Your task to perform on an android device: turn off notifications settings in the gmail app Image 0: 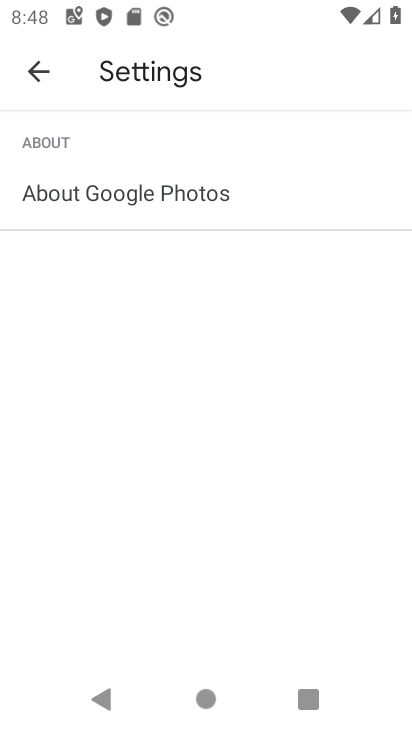
Step 0: press home button
Your task to perform on an android device: turn off notifications settings in the gmail app Image 1: 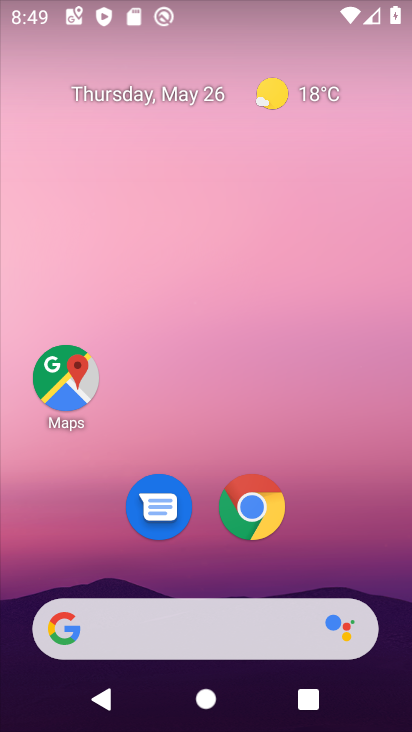
Step 1: drag from (225, 652) to (244, 140)
Your task to perform on an android device: turn off notifications settings in the gmail app Image 2: 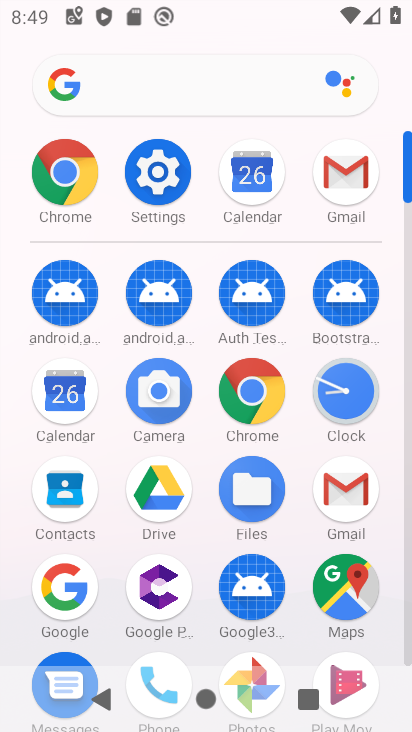
Step 2: click (156, 189)
Your task to perform on an android device: turn off notifications settings in the gmail app Image 3: 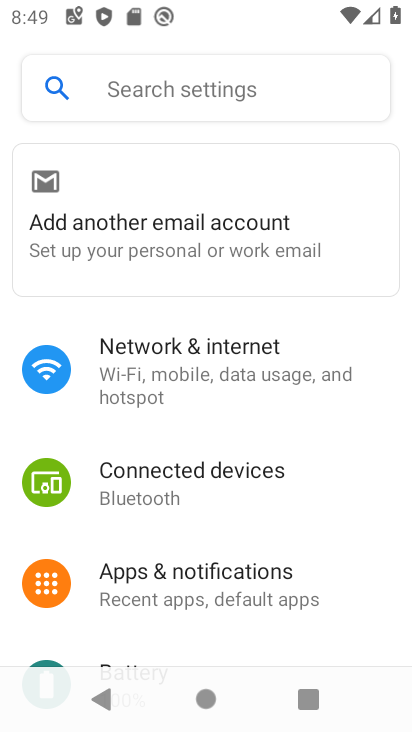
Step 3: click (170, 82)
Your task to perform on an android device: turn off notifications settings in the gmail app Image 4: 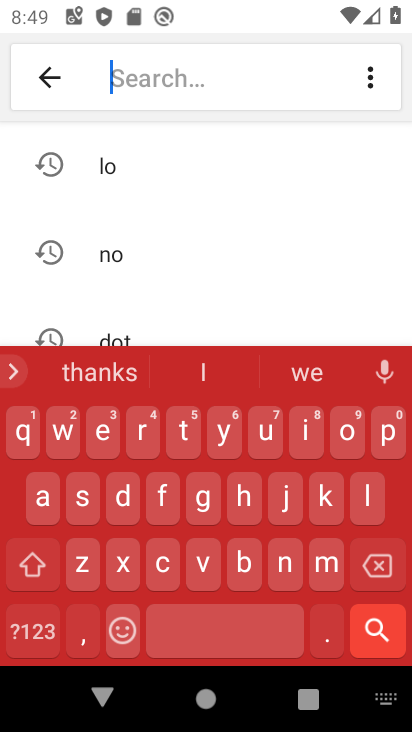
Step 4: click (113, 268)
Your task to perform on an android device: turn off notifications settings in the gmail app Image 5: 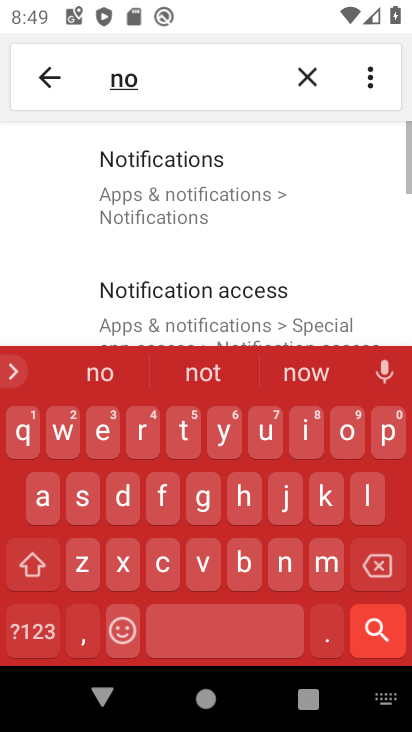
Step 5: click (194, 204)
Your task to perform on an android device: turn off notifications settings in the gmail app Image 6: 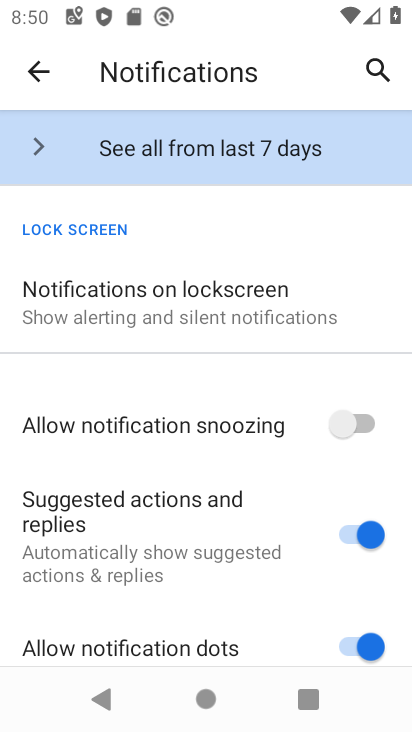
Step 6: click (169, 301)
Your task to perform on an android device: turn off notifications settings in the gmail app Image 7: 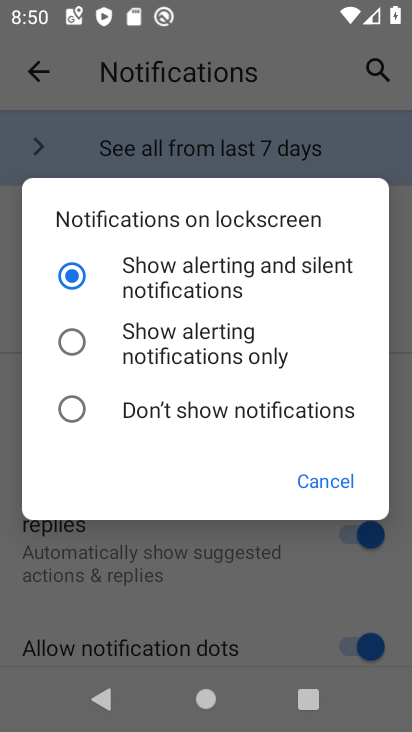
Step 7: click (151, 402)
Your task to perform on an android device: turn off notifications settings in the gmail app Image 8: 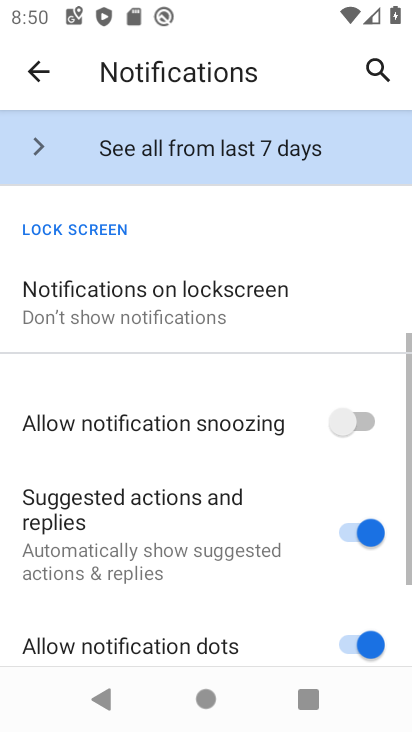
Step 8: task complete